Your task to perform on an android device: Go to settings Image 0: 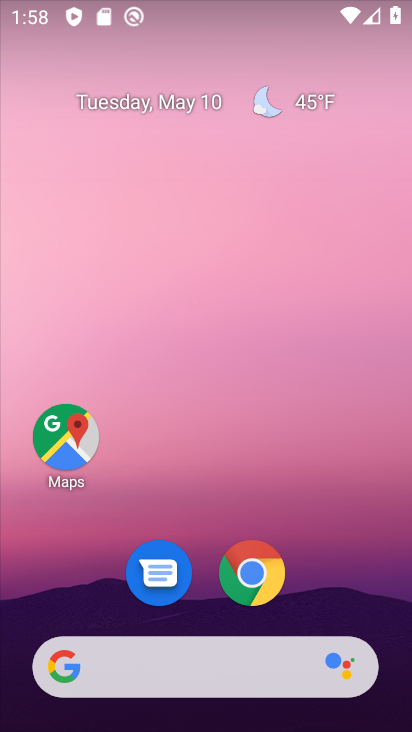
Step 0: drag from (210, 606) to (237, 309)
Your task to perform on an android device: Go to settings Image 1: 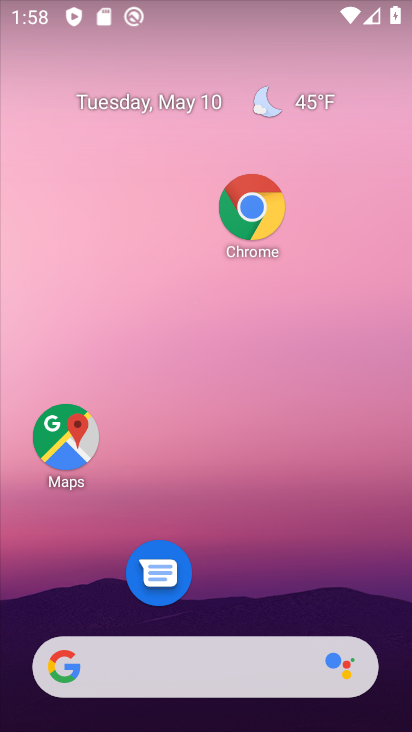
Step 1: drag from (242, 596) to (300, 72)
Your task to perform on an android device: Go to settings Image 2: 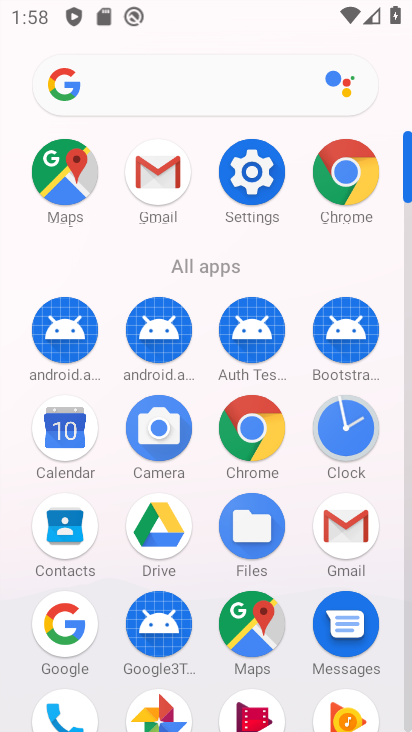
Step 2: click (257, 212)
Your task to perform on an android device: Go to settings Image 3: 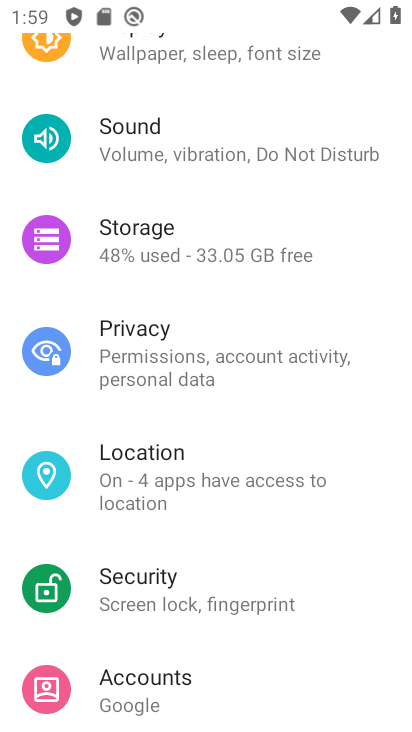
Step 3: task complete